Your task to perform on an android device: View the shopping cart on walmart.com. Image 0: 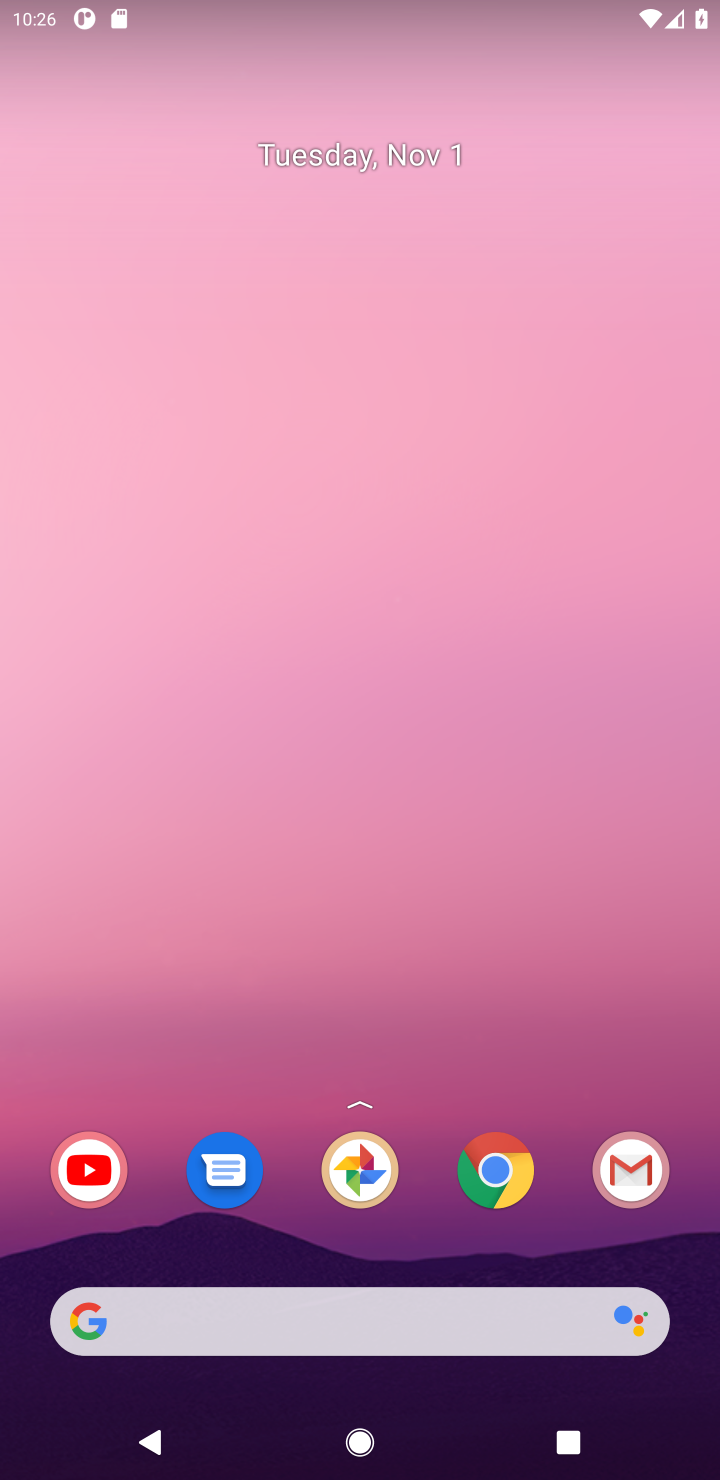
Step 0: click (498, 1173)
Your task to perform on an android device: View the shopping cart on walmart.com. Image 1: 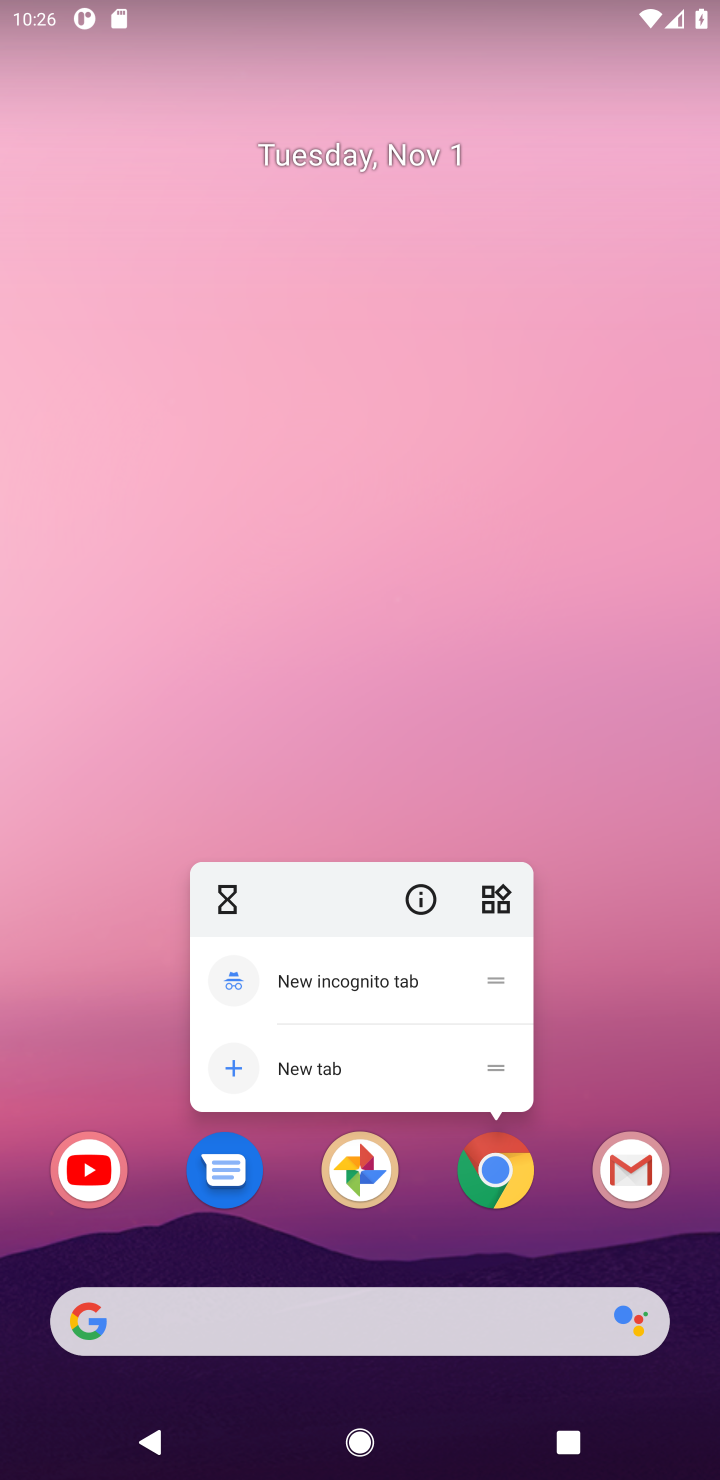
Step 1: click (510, 1187)
Your task to perform on an android device: View the shopping cart on walmart.com. Image 2: 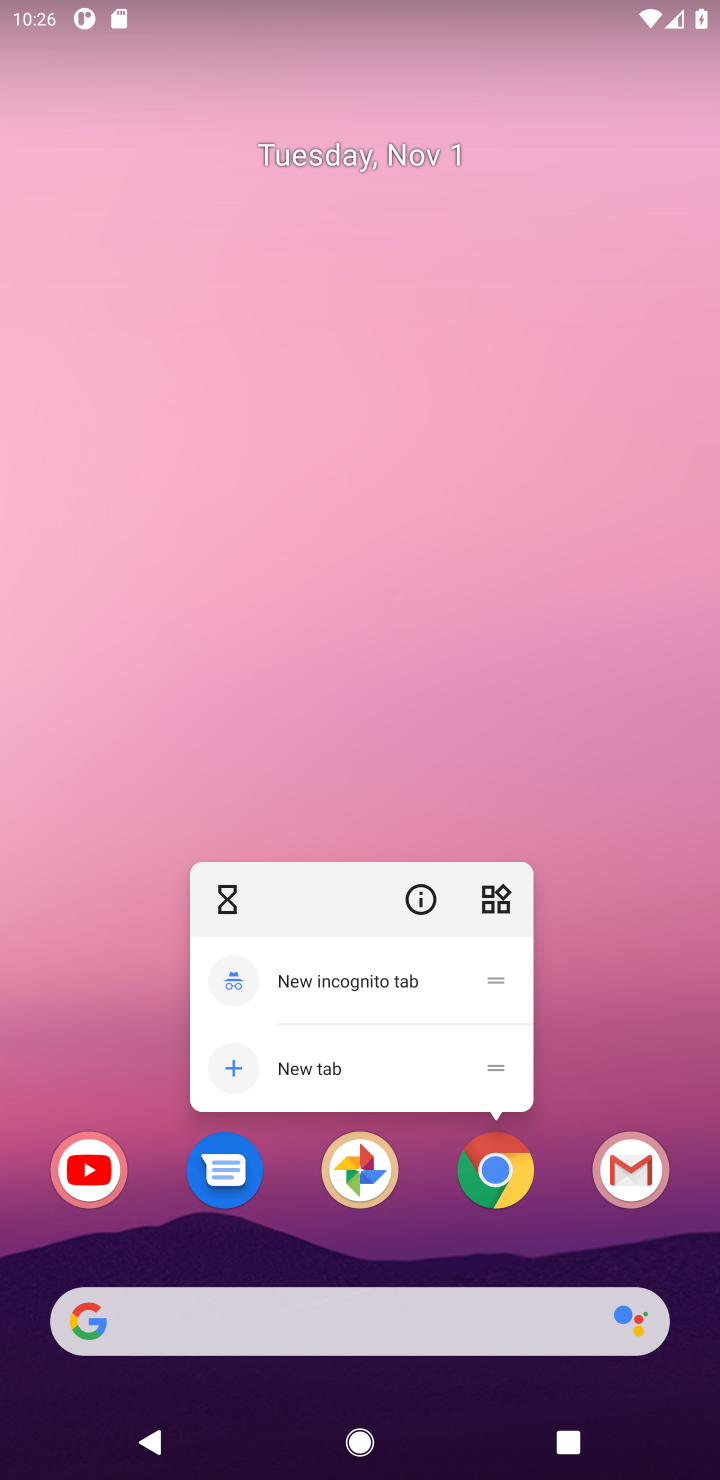
Step 2: click (524, 1168)
Your task to perform on an android device: View the shopping cart on walmart.com. Image 3: 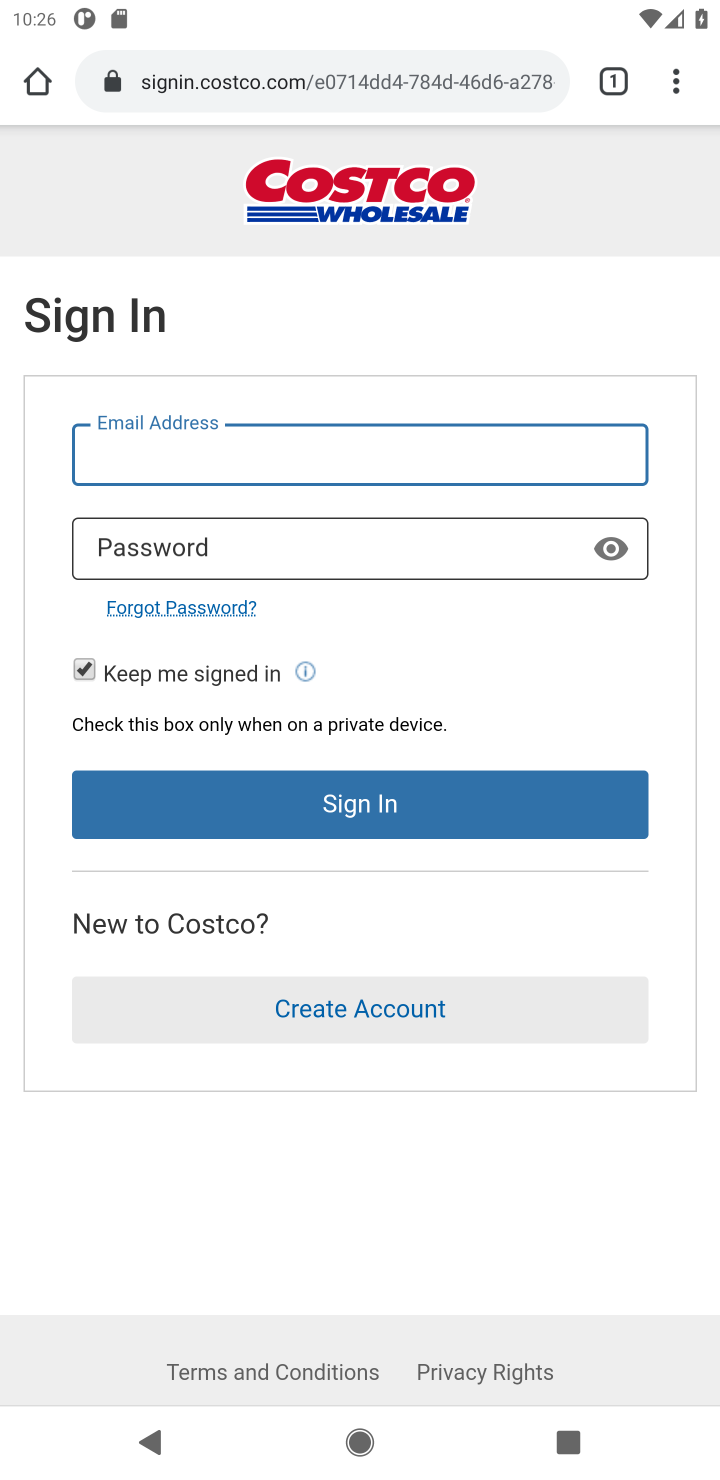
Step 3: click (397, 76)
Your task to perform on an android device: View the shopping cart on walmart.com. Image 4: 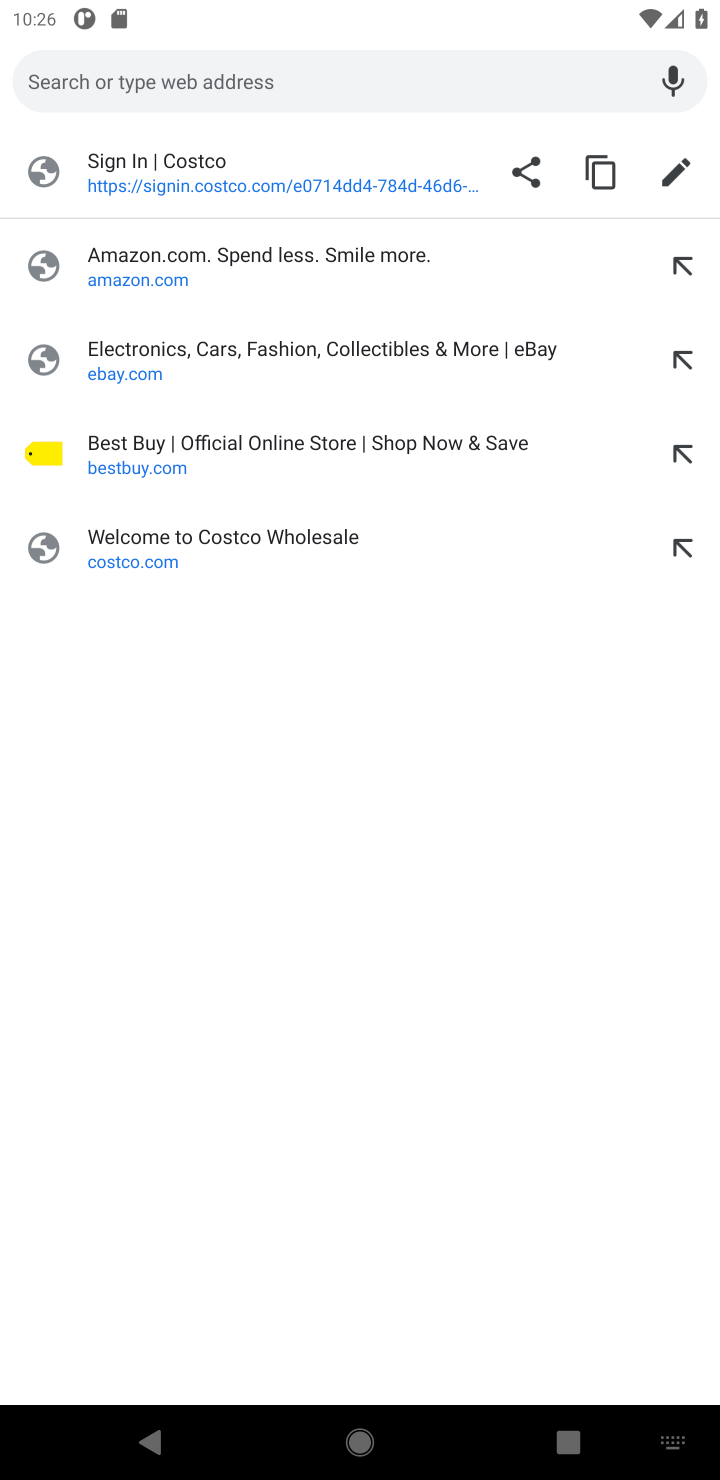
Step 4: type "walmart.com"
Your task to perform on an android device: View the shopping cart on walmart.com. Image 5: 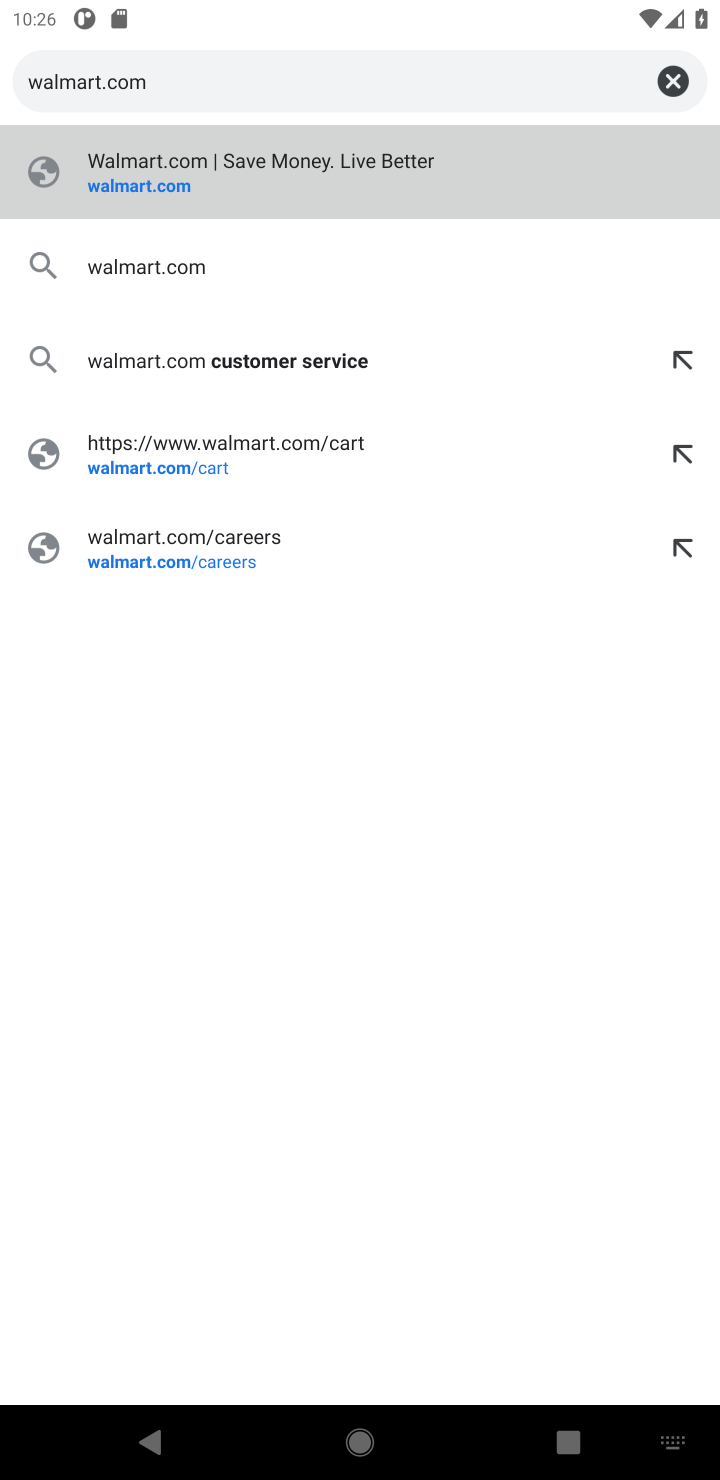
Step 5: type ""
Your task to perform on an android device: View the shopping cart on walmart.com. Image 6: 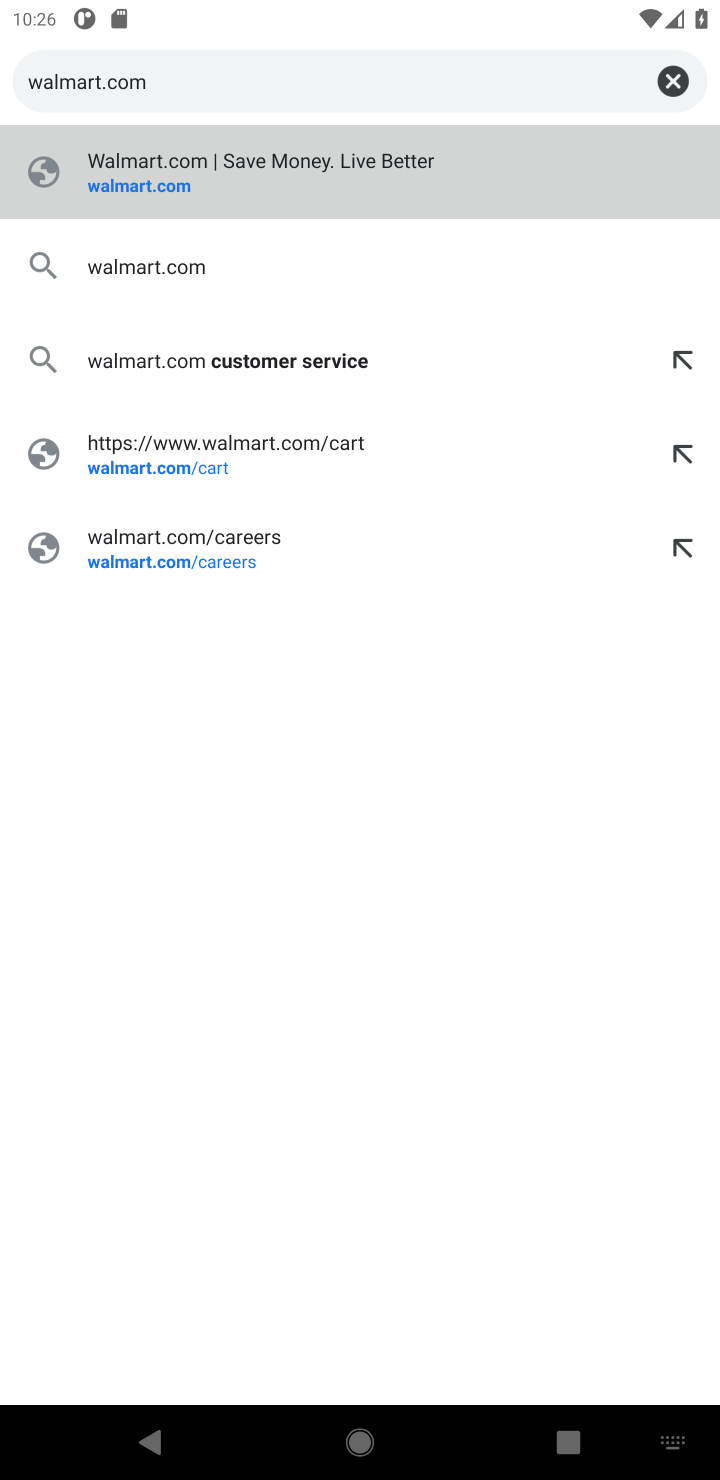
Step 6: press enter
Your task to perform on an android device: View the shopping cart on walmart.com. Image 7: 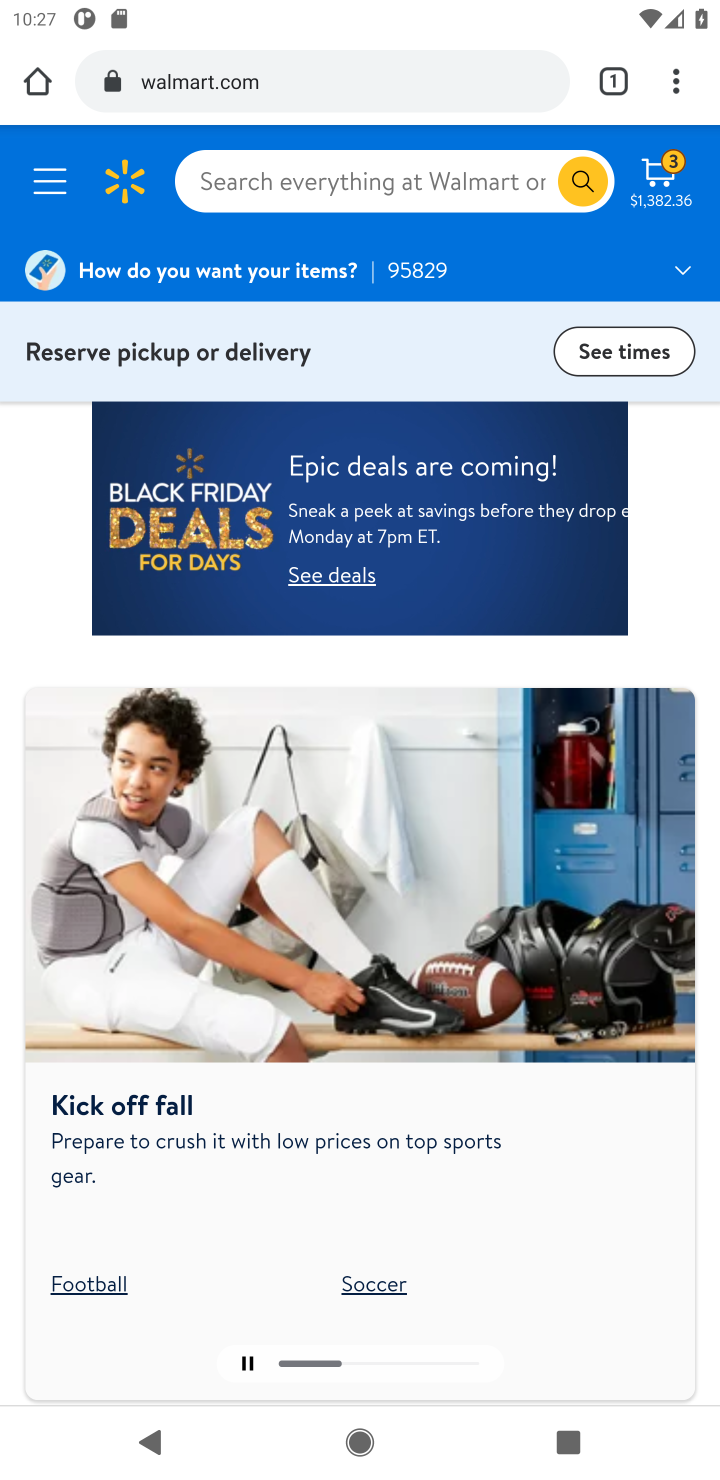
Step 7: click (660, 175)
Your task to perform on an android device: View the shopping cart on walmart.com. Image 8: 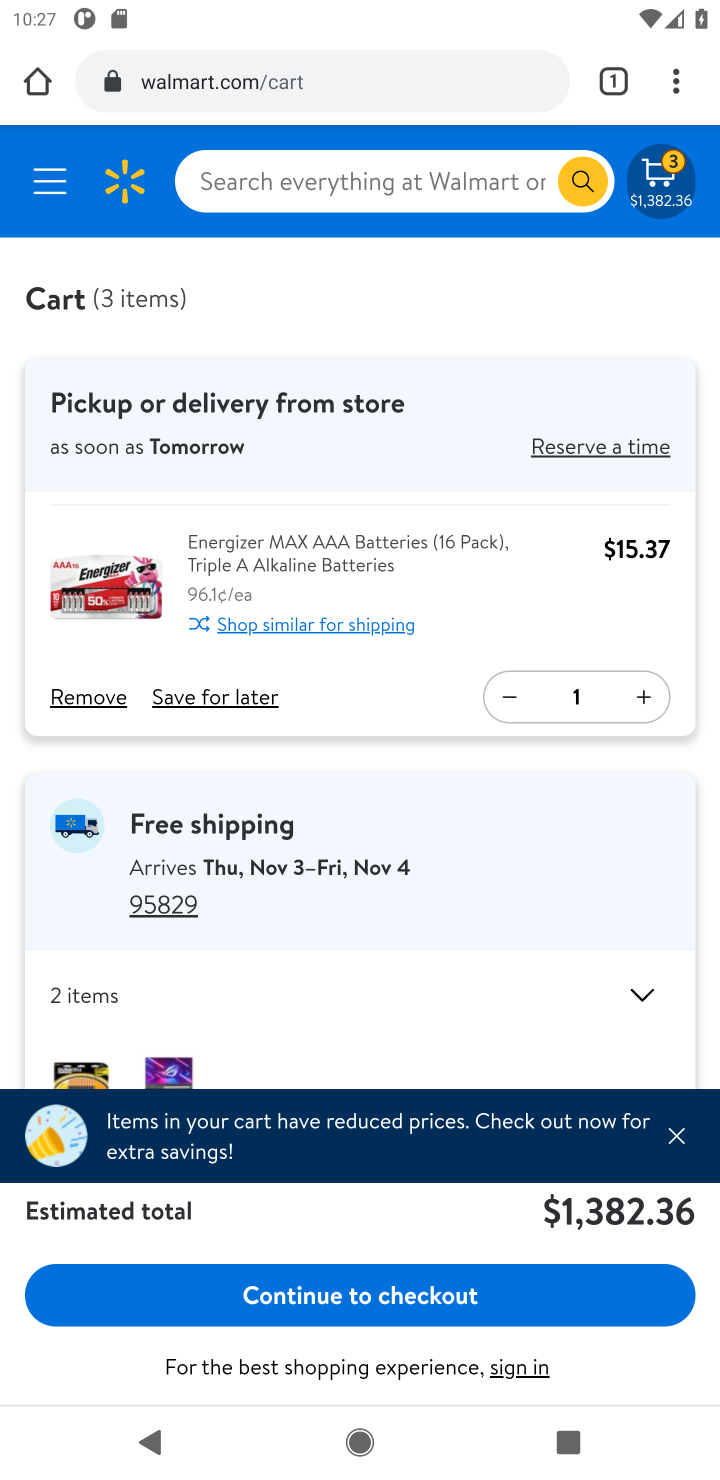
Step 8: click (82, 702)
Your task to perform on an android device: View the shopping cart on walmart.com. Image 9: 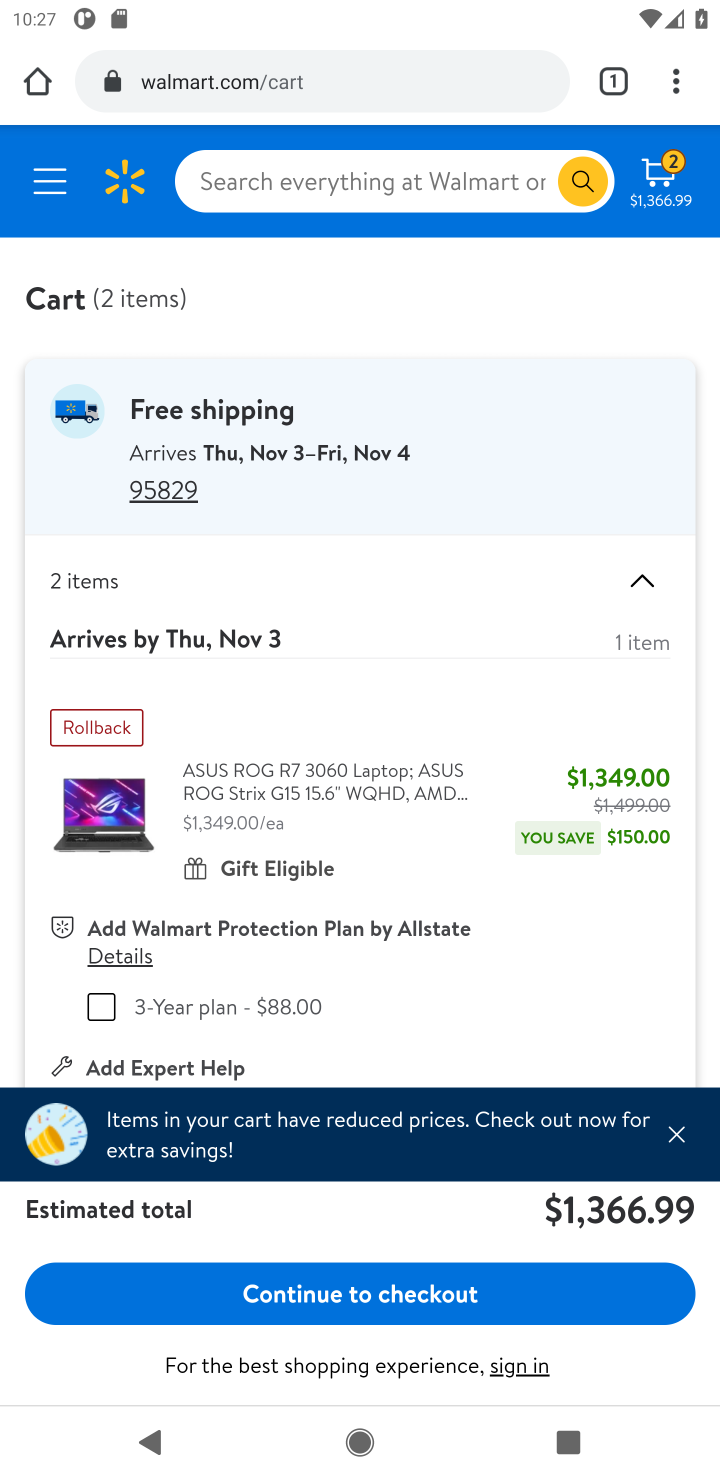
Step 9: task complete